Your task to perform on an android device: What is the capital of Brazil? Image 0: 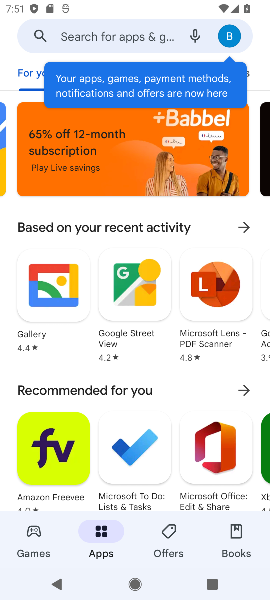
Step 0: press home button
Your task to perform on an android device: What is the capital of Brazil? Image 1: 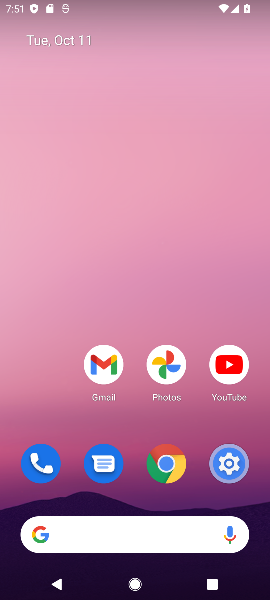
Step 1: drag from (63, 494) to (76, 35)
Your task to perform on an android device: What is the capital of Brazil? Image 2: 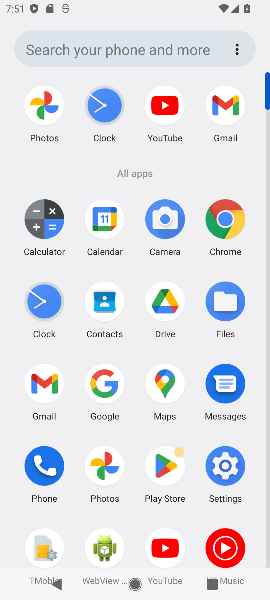
Step 2: click (102, 373)
Your task to perform on an android device: What is the capital of Brazil? Image 3: 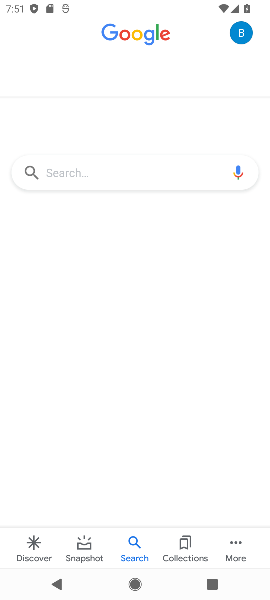
Step 3: click (150, 169)
Your task to perform on an android device: What is the capital of Brazil? Image 4: 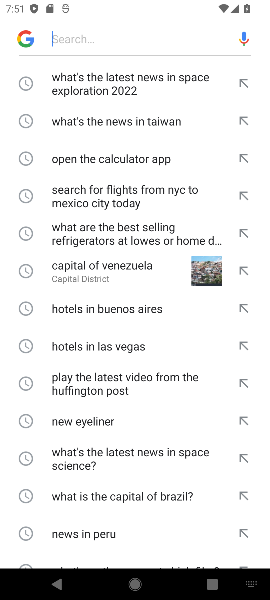
Step 4: type "What is the capital of Brazil? "
Your task to perform on an android device: What is the capital of Brazil? Image 5: 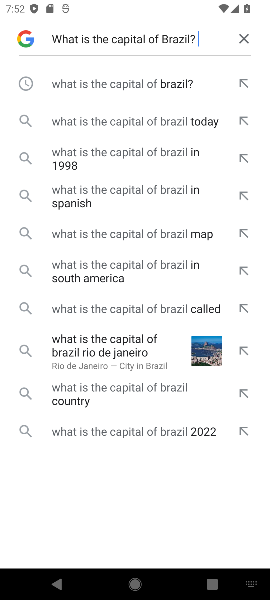
Step 5: click (83, 80)
Your task to perform on an android device: What is the capital of Brazil? Image 6: 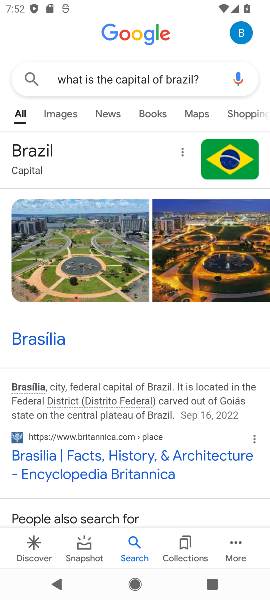
Step 6: task complete